Your task to perform on an android device: Open ESPN.com Image 0: 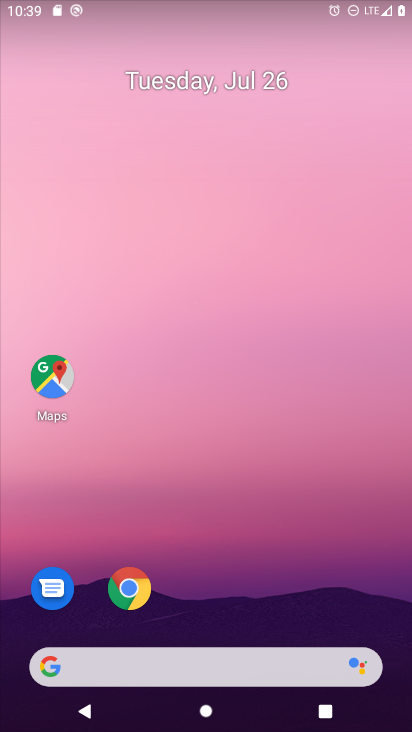
Step 0: drag from (237, 511) to (289, 116)
Your task to perform on an android device: Open ESPN.com Image 1: 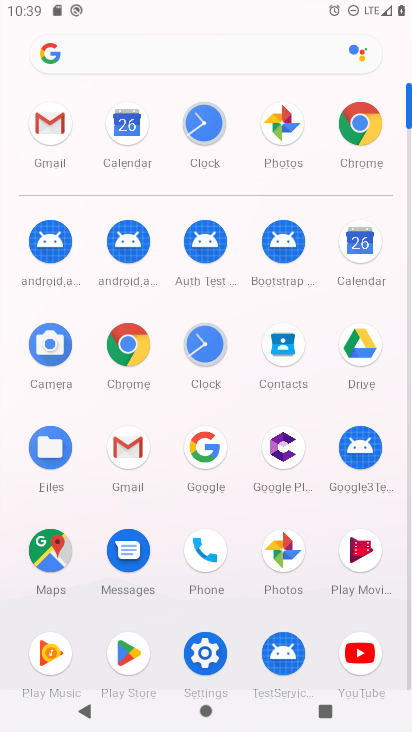
Step 1: click (369, 161)
Your task to perform on an android device: Open ESPN.com Image 2: 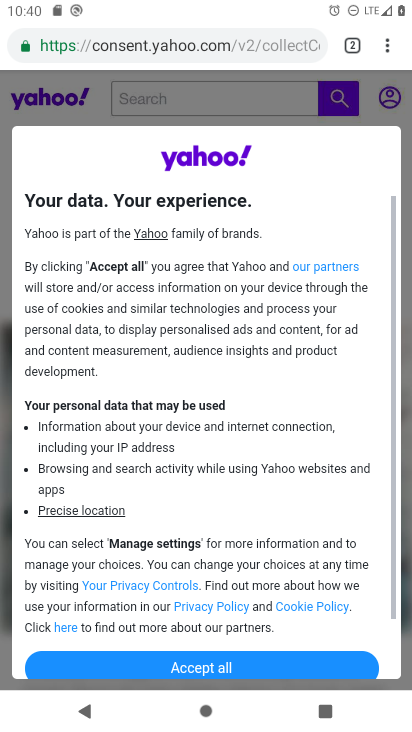
Step 2: click (232, 50)
Your task to perform on an android device: Open ESPN.com Image 3: 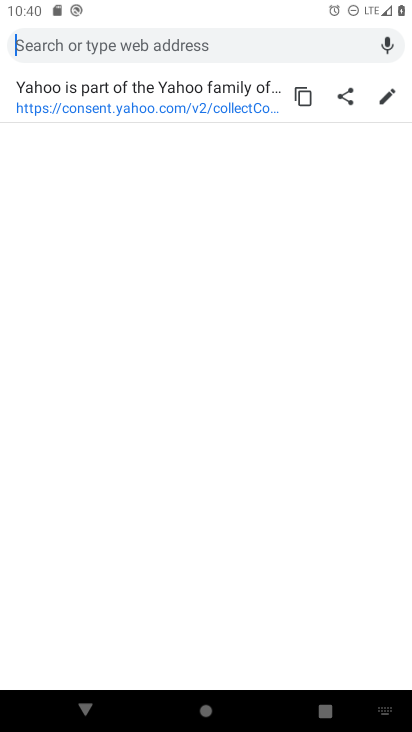
Step 3: click (215, 45)
Your task to perform on an android device: Open ESPN.com Image 4: 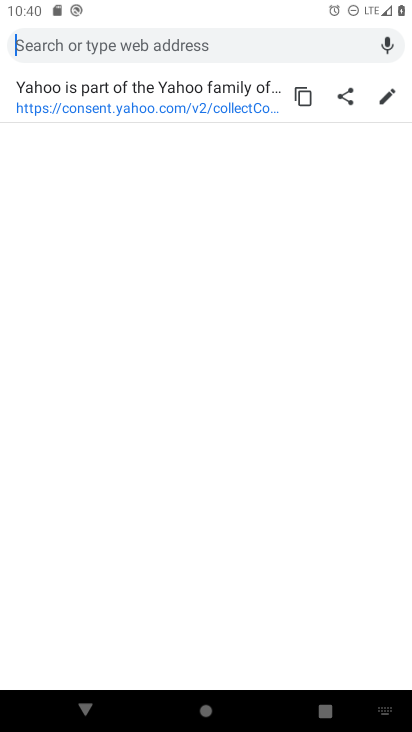
Step 4: type "espn"
Your task to perform on an android device: Open ESPN.com Image 5: 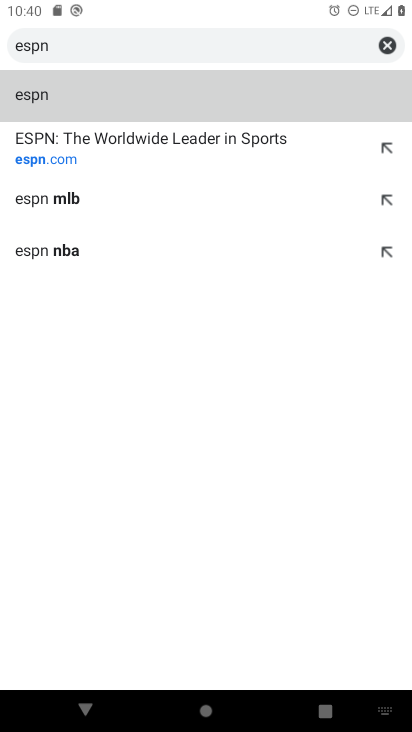
Step 5: click (90, 151)
Your task to perform on an android device: Open ESPN.com Image 6: 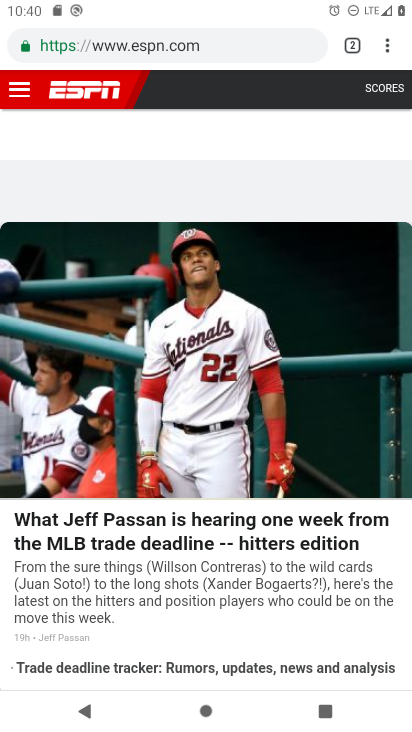
Step 6: task complete